Your task to perform on an android device: change text size in settings app Image 0: 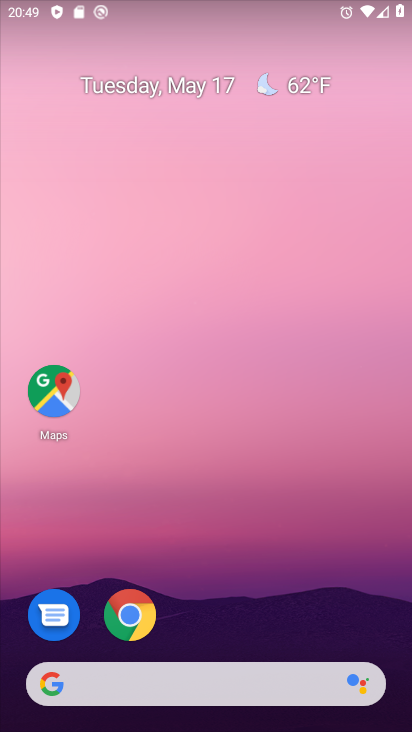
Step 0: drag from (293, 601) to (246, 68)
Your task to perform on an android device: change text size in settings app Image 1: 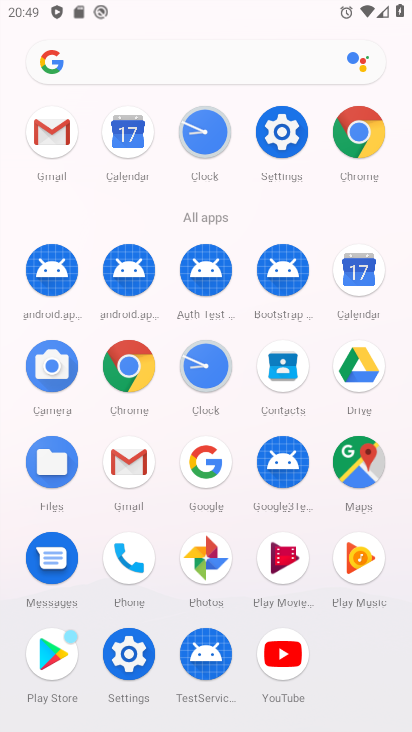
Step 1: click (279, 128)
Your task to perform on an android device: change text size in settings app Image 2: 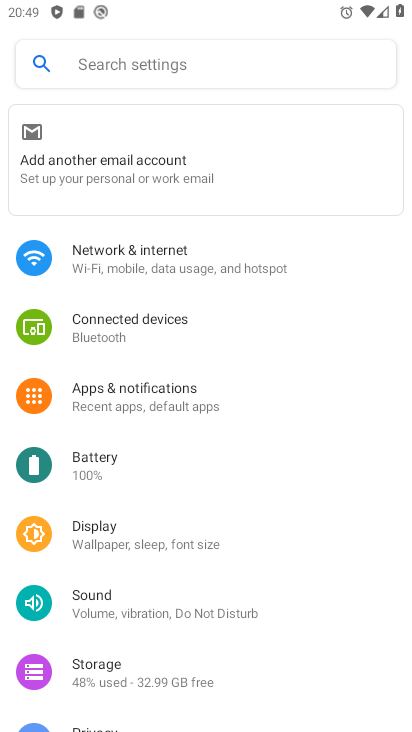
Step 2: click (142, 540)
Your task to perform on an android device: change text size in settings app Image 3: 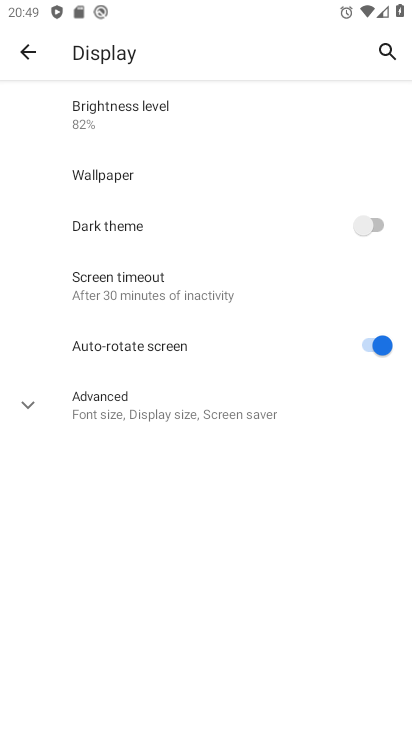
Step 3: click (96, 401)
Your task to perform on an android device: change text size in settings app Image 4: 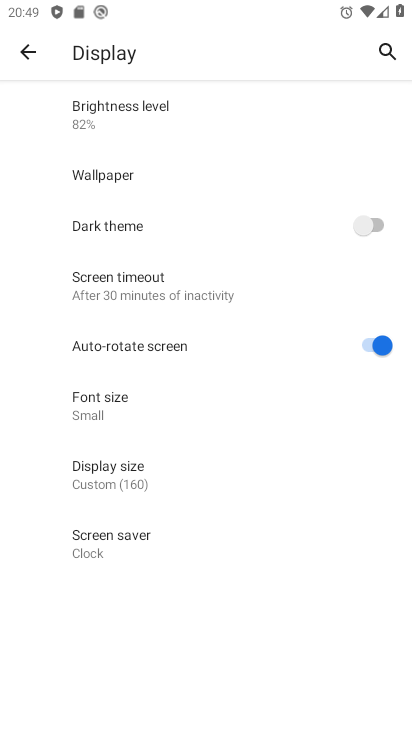
Step 4: click (85, 409)
Your task to perform on an android device: change text size in settings app Image 5: 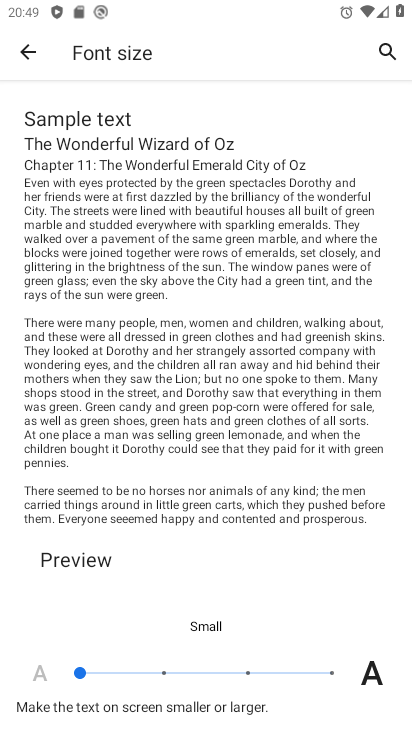
Step 5: click (152, 666)
Your task to perform on an android device: change text size in settings app Image 6: 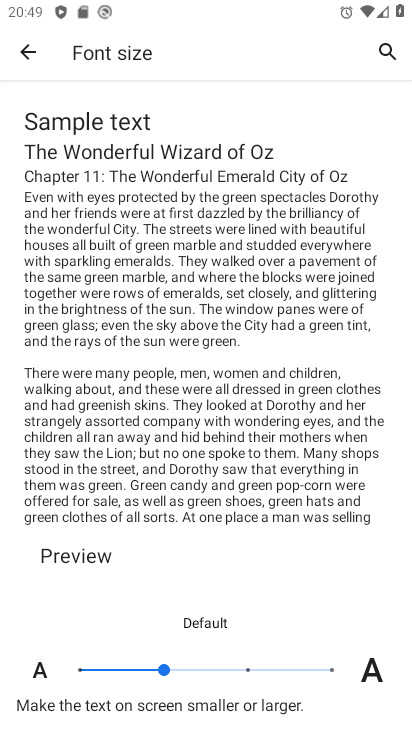
Step 6: task complete